Your task to perform on an android device: Go to eBay Image 0: 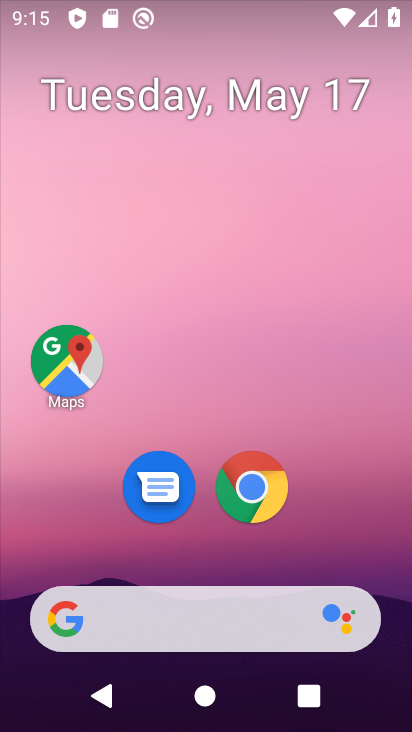
Step 0: press home button
Your task to perform on an android device: Go to eBay Image 1: 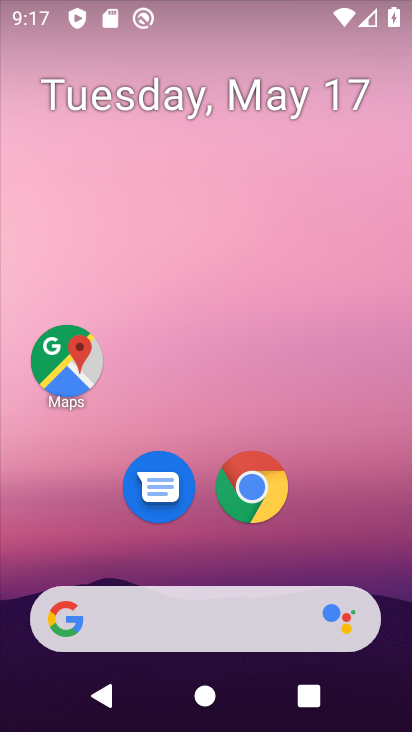
Step 1: drag from (213, 646) to (304, 183)
Your task to perform on an android device: Go to eBay Image 2: 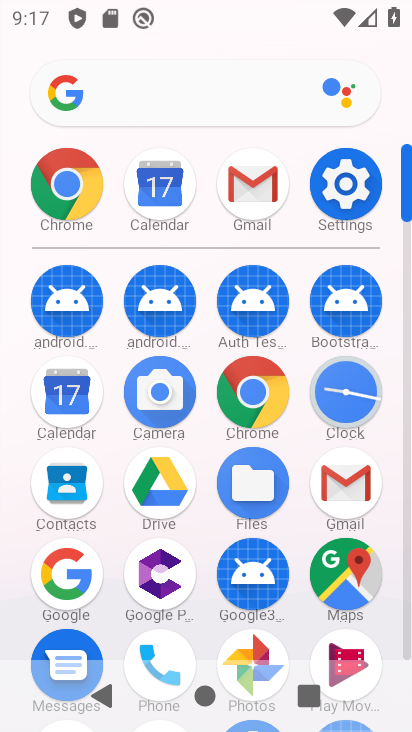
Step 2: click (89, 184)
Your task to perform on an android device: Go to eBay Image 3: 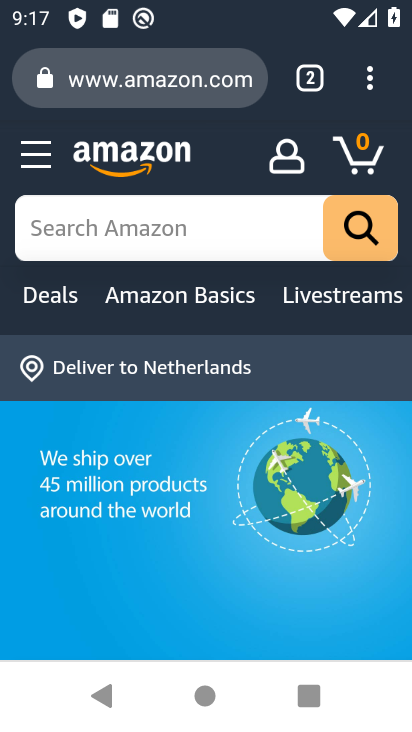
Step 3: click (139, 76)
Your task to perform on an android device: Go to eBay Image 4: 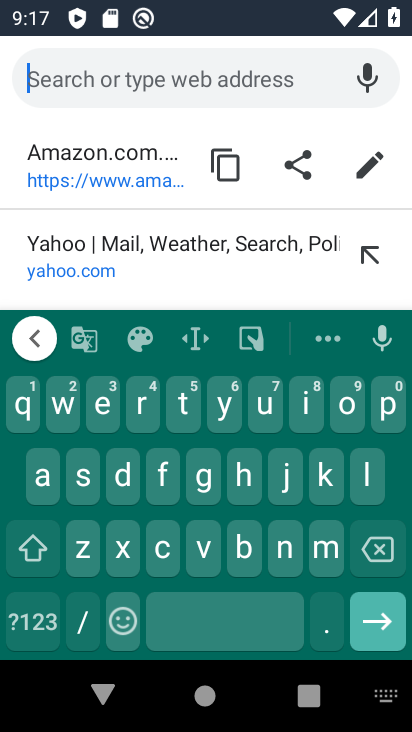
Step 4: click (104, 411)
Your task to perform on an android device: Go to eBay Image 5: 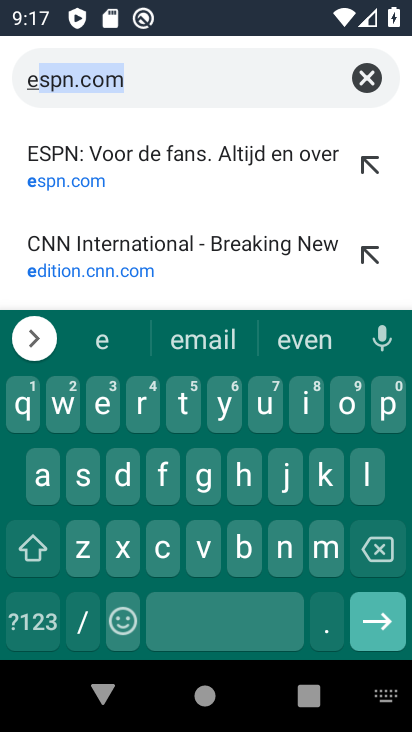
Step 5: click (237, 555)
Your task to perform on an android device: Go to eBay Image 6: 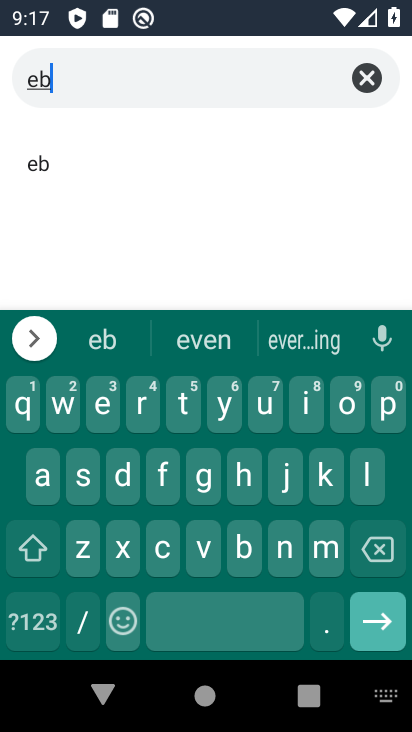
Step 6: click (40, 485)
Your task to perform on an android device: Go to eBay Image 7: 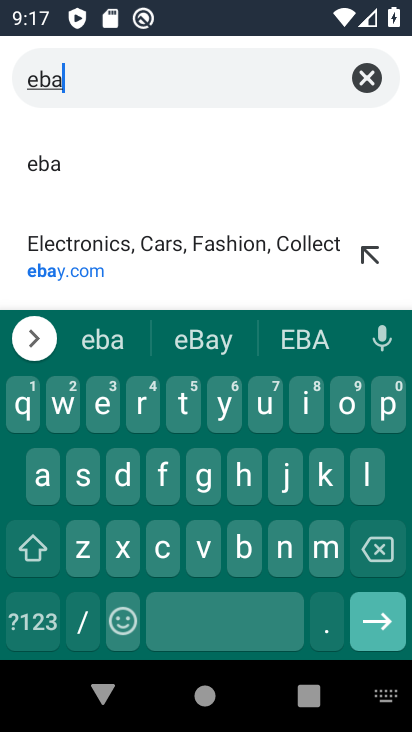
Step 7: click (216, 419)
Your task to perform on an android device: Go to eBay Image 8: 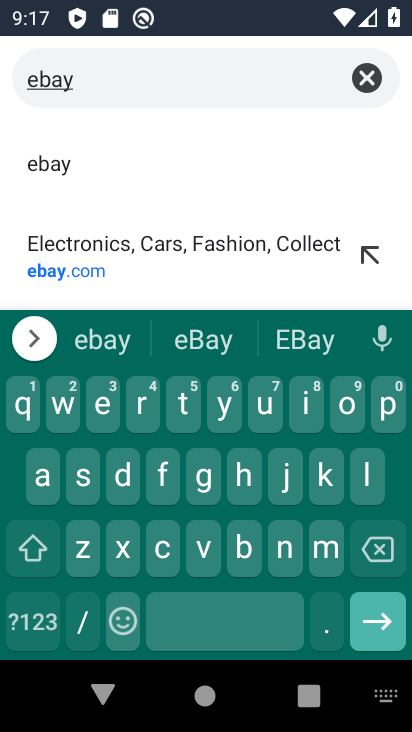
Step 8: click (378, 620)
Your task to perform on an android device: Go to eBay Image 9: 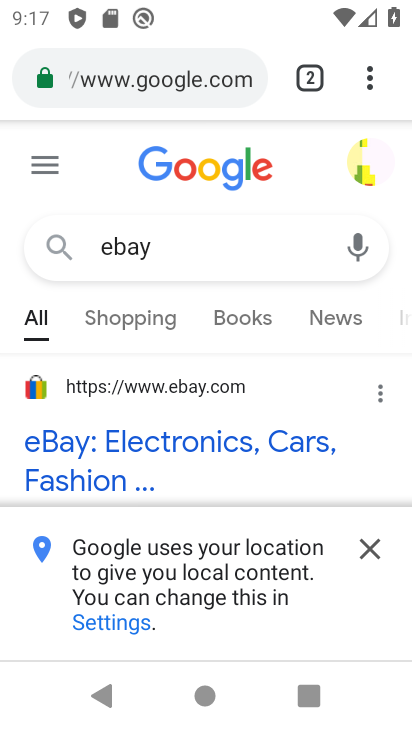
Step 9: click (154, 457)
Your task to perform on an android device: Go to eBay Image 10: 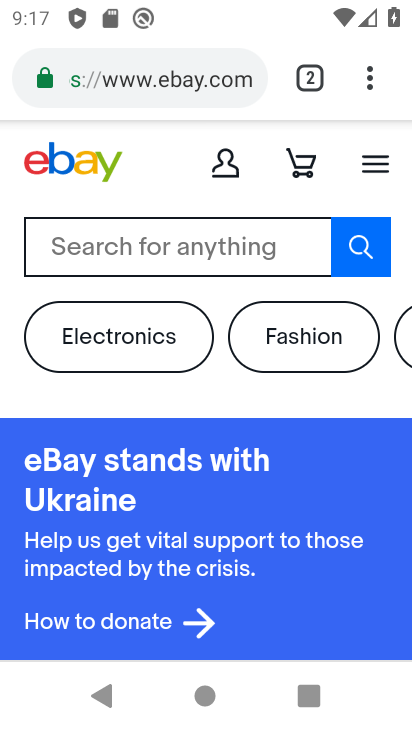
Step 10: task complete